Your task to perform on an android device: open a new tab in the chrome app Image 0: 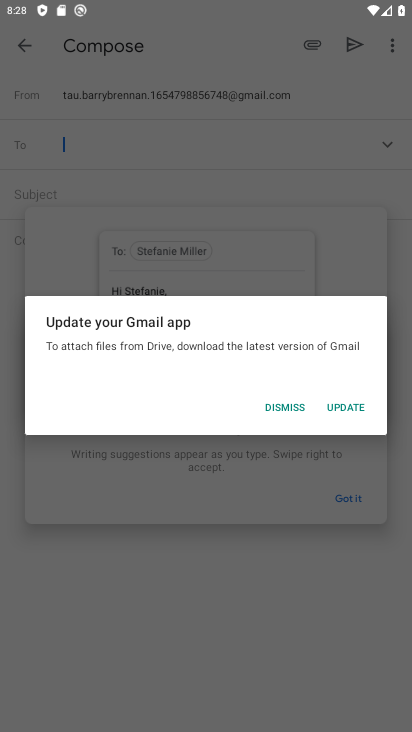
Step 0: press home button
Your task to perform on an android device: open a new tab in the chrome app Image 1: 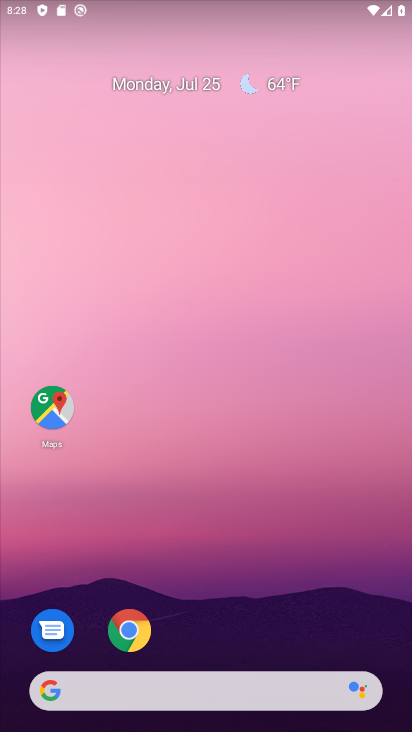
Step 1: click (129, 630)
Your task to perform on an android device: open a new tab in the chrome app Image 2: 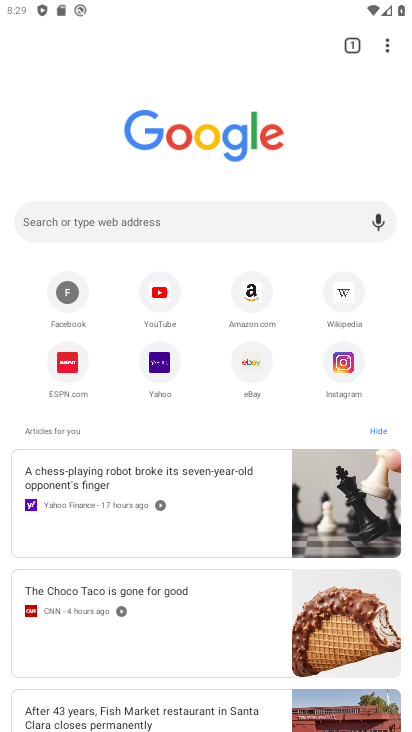
Step 2: click (384, 49)
Your task to perform on an android device: open a new tab in the chrome app Image 3: 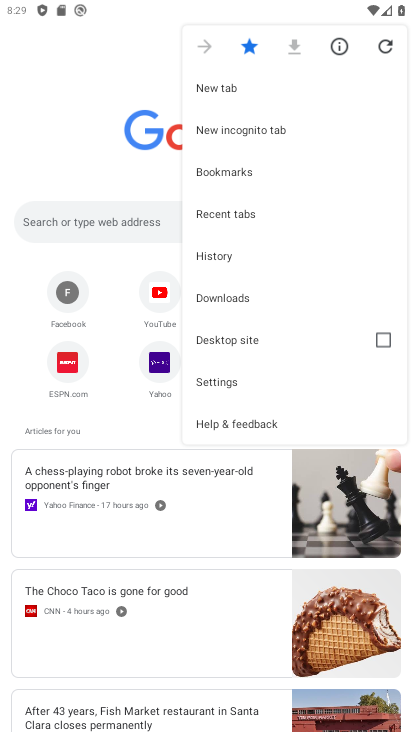
Step 3: click (212, 82)
Your task to perform on an android device: open a new tab in the chrome app Image 4: 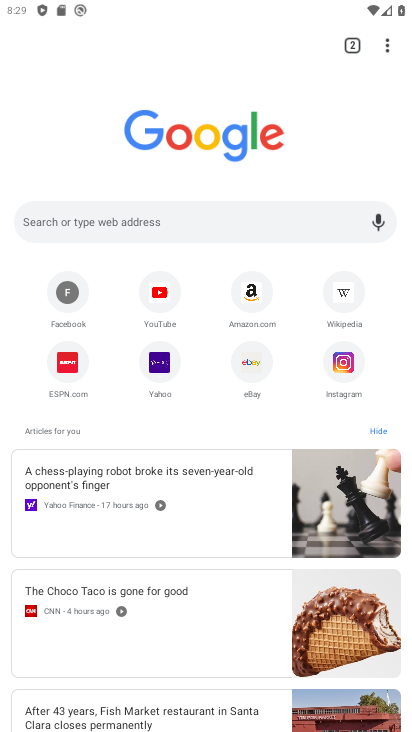
Step 4: task complete